Your task to perform on an android device: Open the stopwatch Image 0: 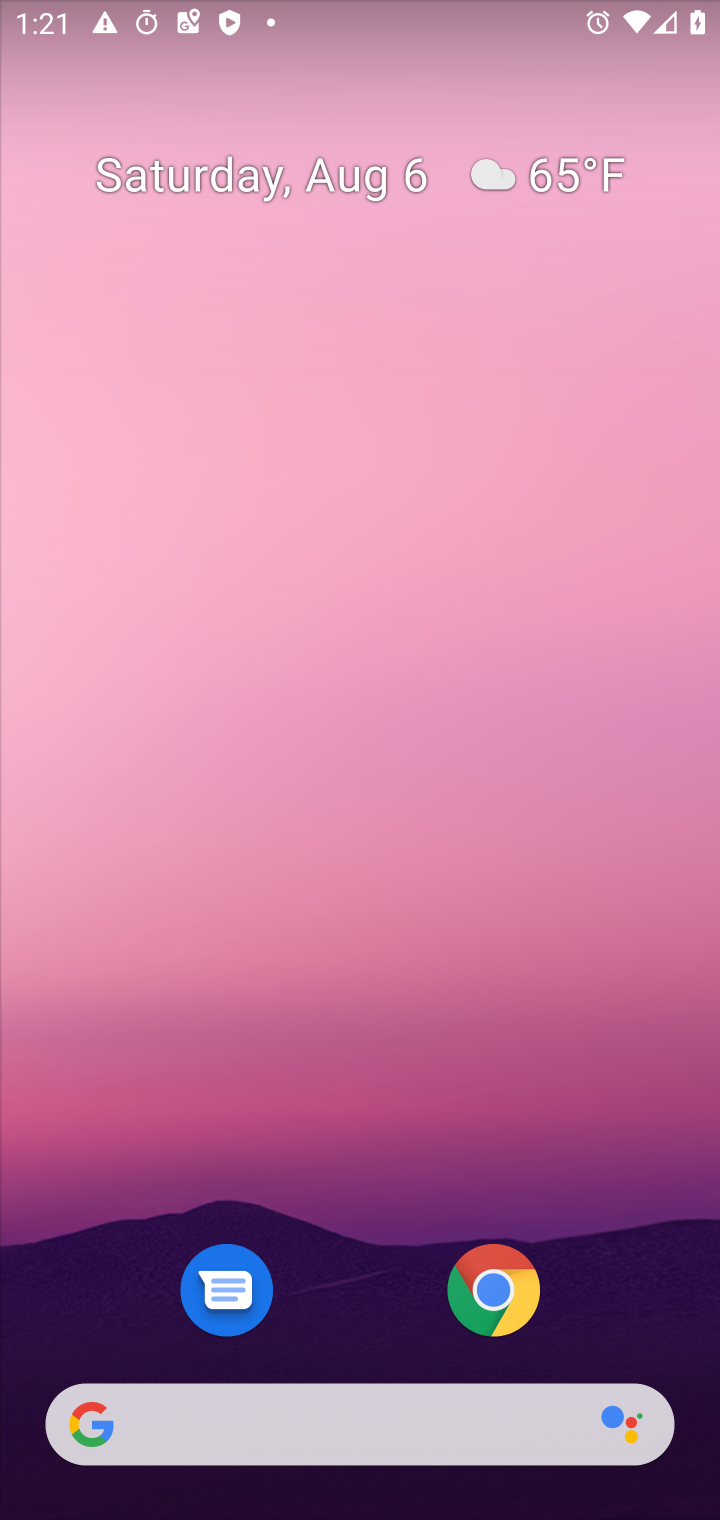
Step 0: drag from (383, 1325) to (387, 116)
Your task to perform on an android device: Open the stopwatch Image 1: 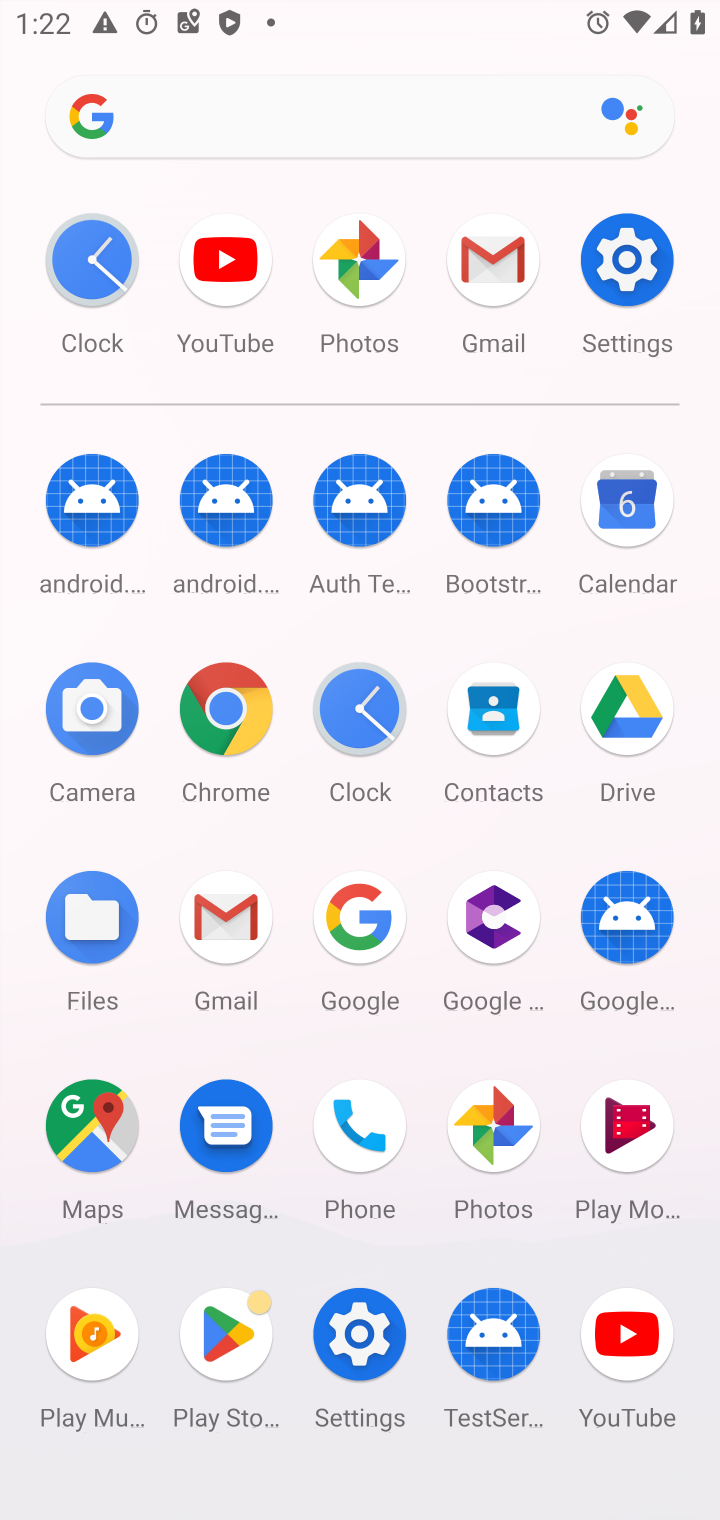
Step 1: click (354, 696)
Your task to perform on an android device: Open the stopwatch Image 2: 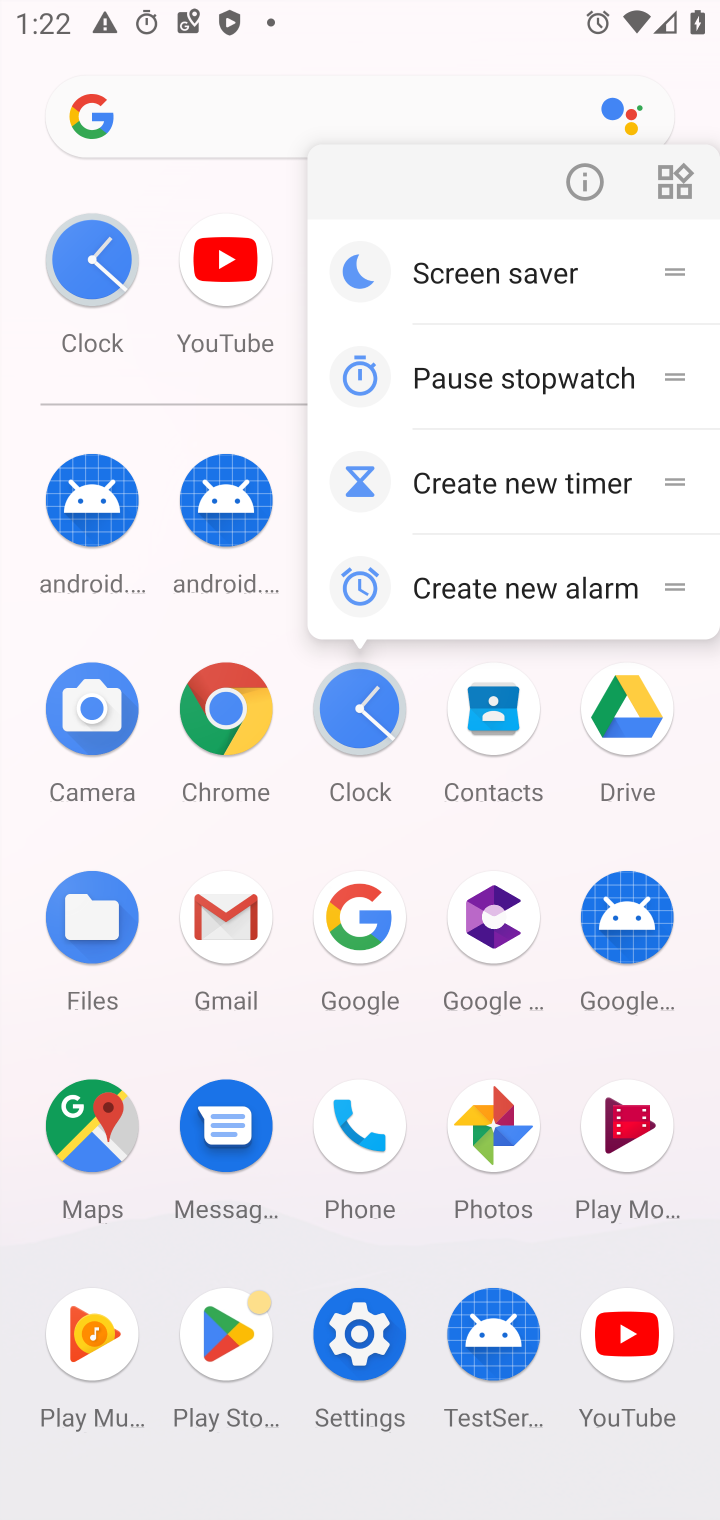
Step 2: click (359, 694)
Your task to perform on an android device: Open the stopwatch Image 3: 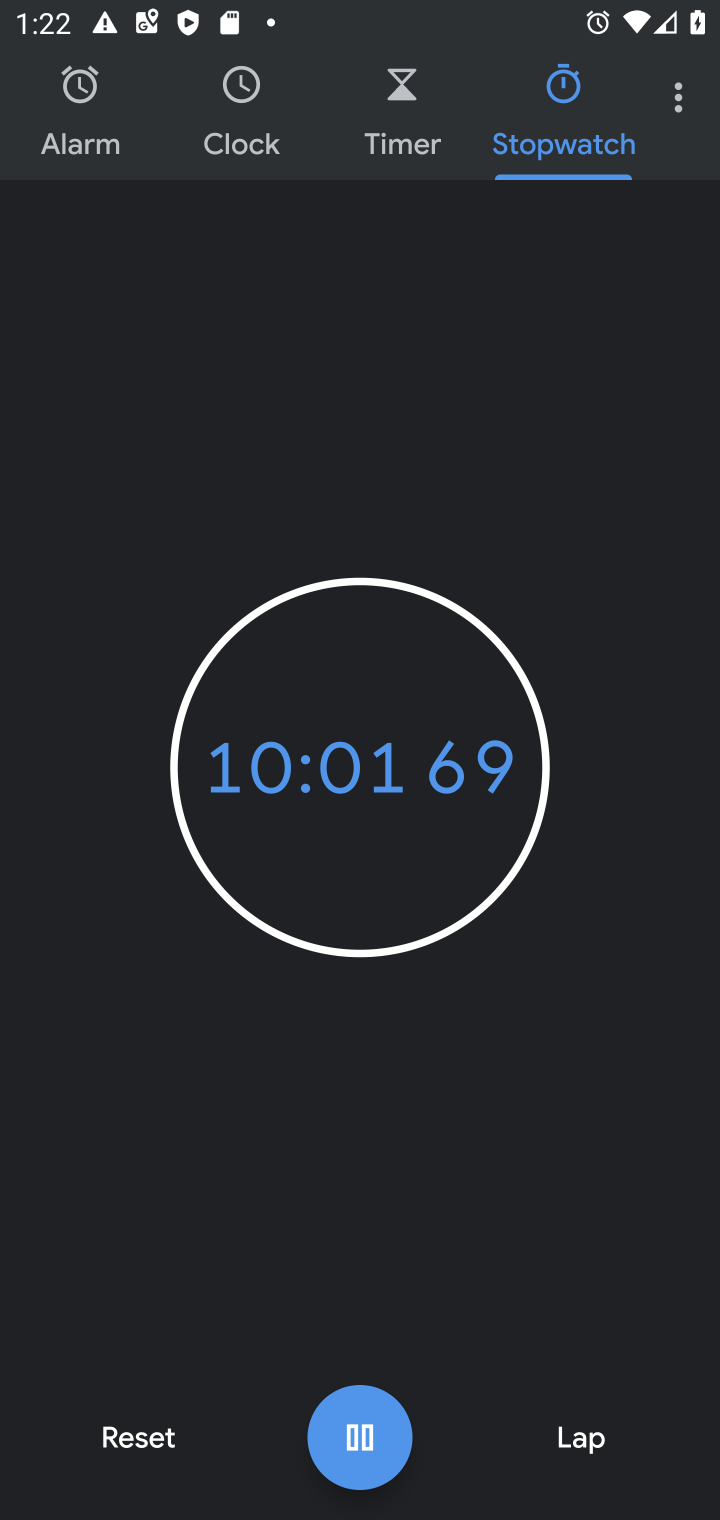
Step 3: task complete